Your task to perform on an android device: toggle sleep mode Image 0: 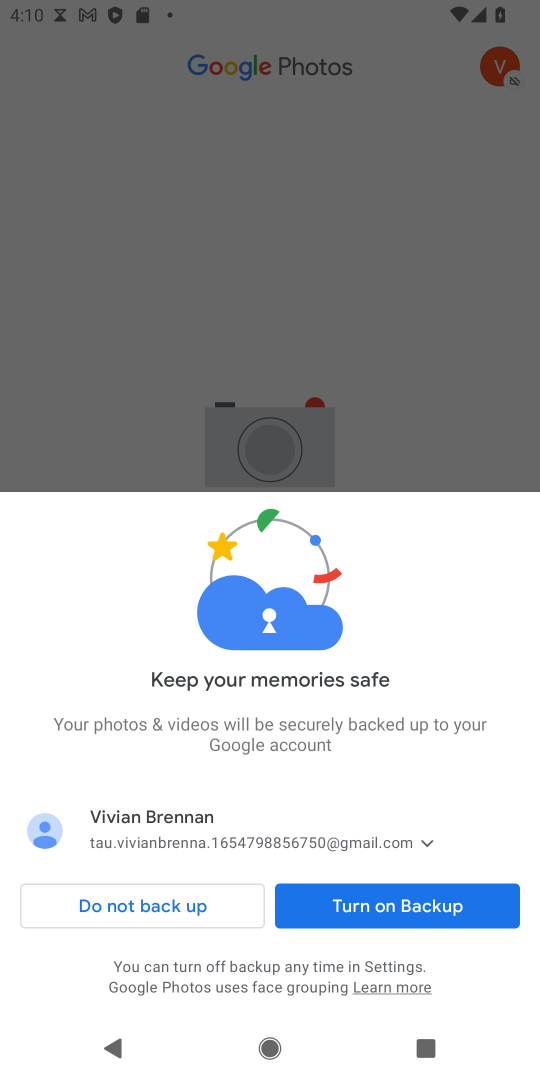
Step 0: press back button
Your task to perform on an android device: toggle sleep mode Image 1: 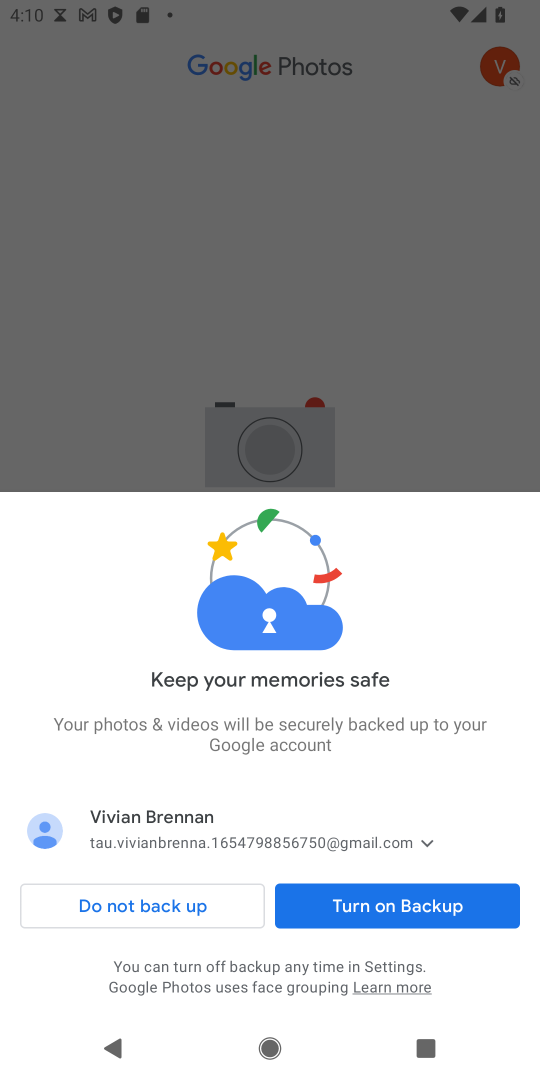
Step 1: press home button
Your task to perform on an android device: toggle sleep mode Image 2: 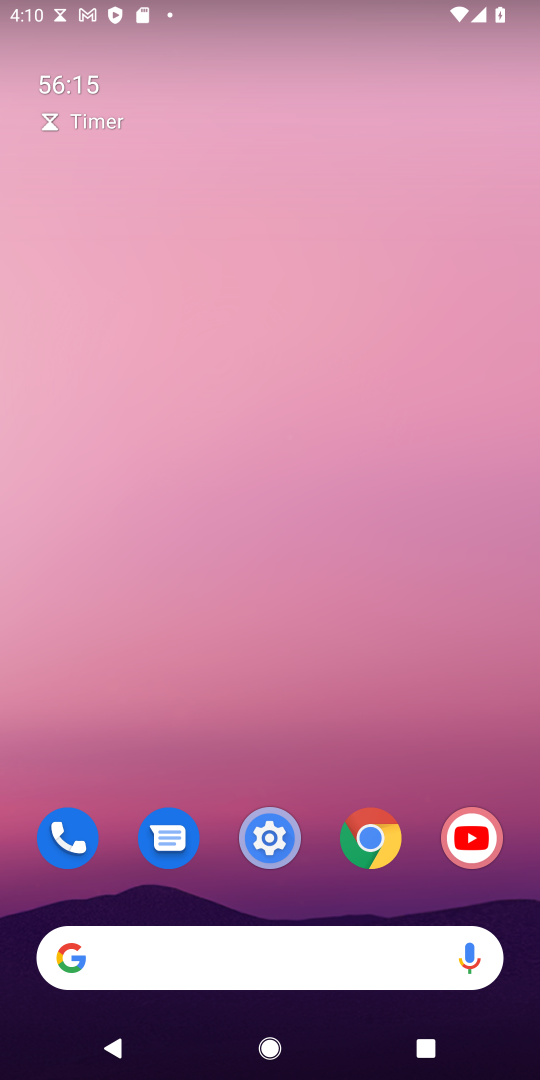
Step 2: click (263, 823)
Your task to perform on an android device: toggle sleep mode Image 3: 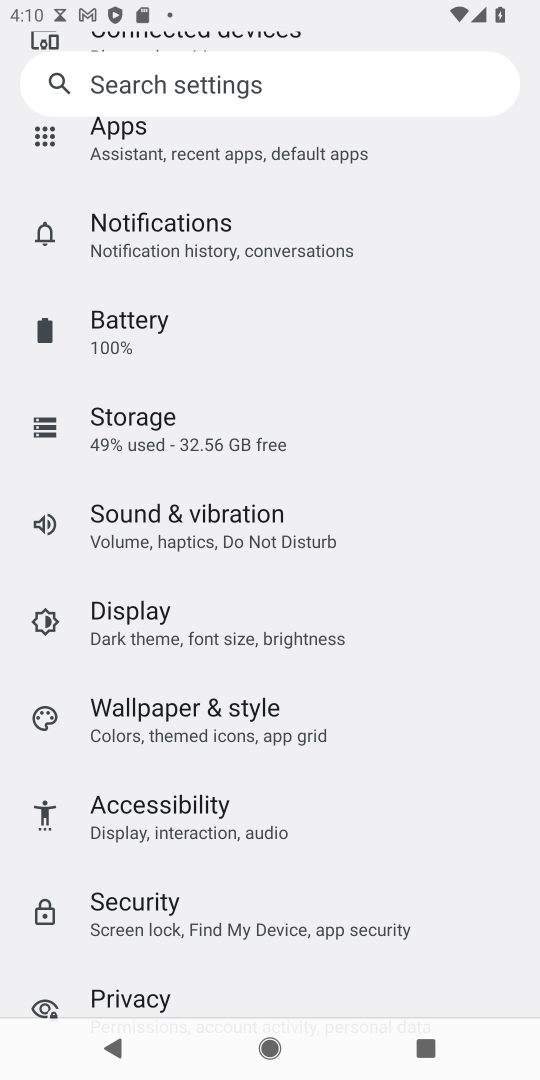
Step 3: click (215, 634)
Your task to perform on an android device: toggle sleep mode Image 4: 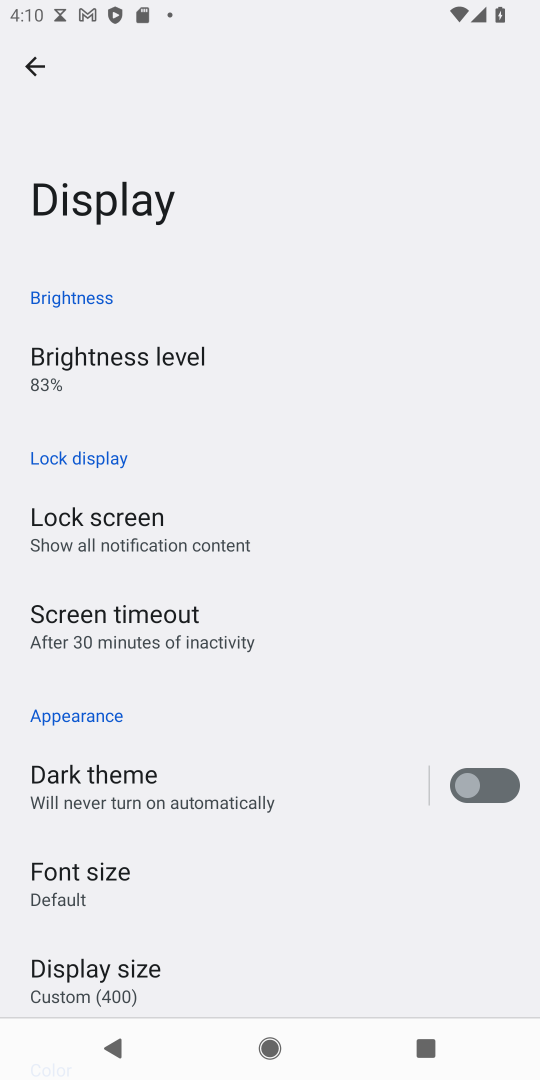
Step 4: click (313, 979)
Your task to perform on an android device: toggle sleep mode Image 5: 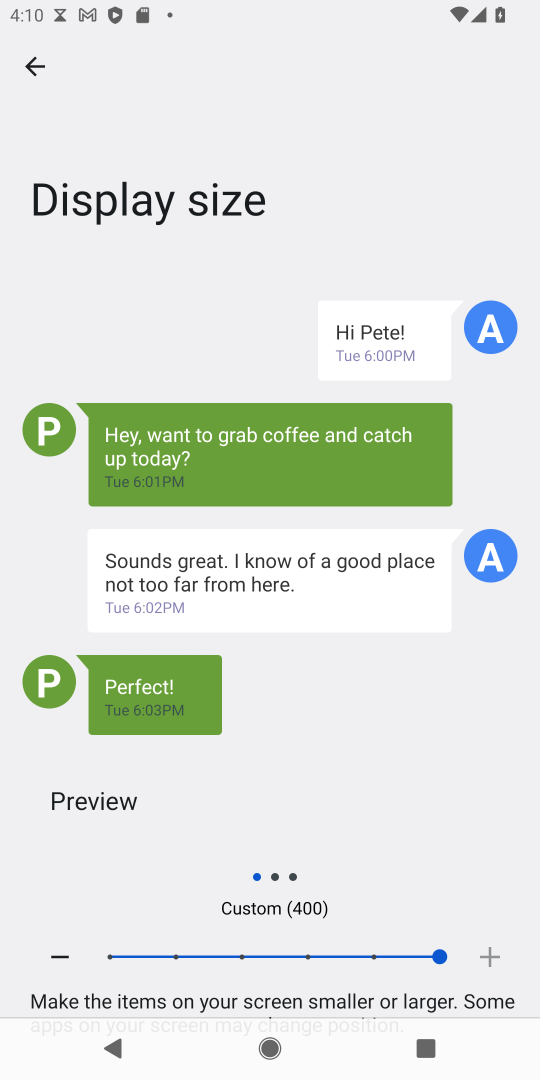
Step 5: click (37, 56)
Your task to perform on an android device: toggle sleep mode Image 6: 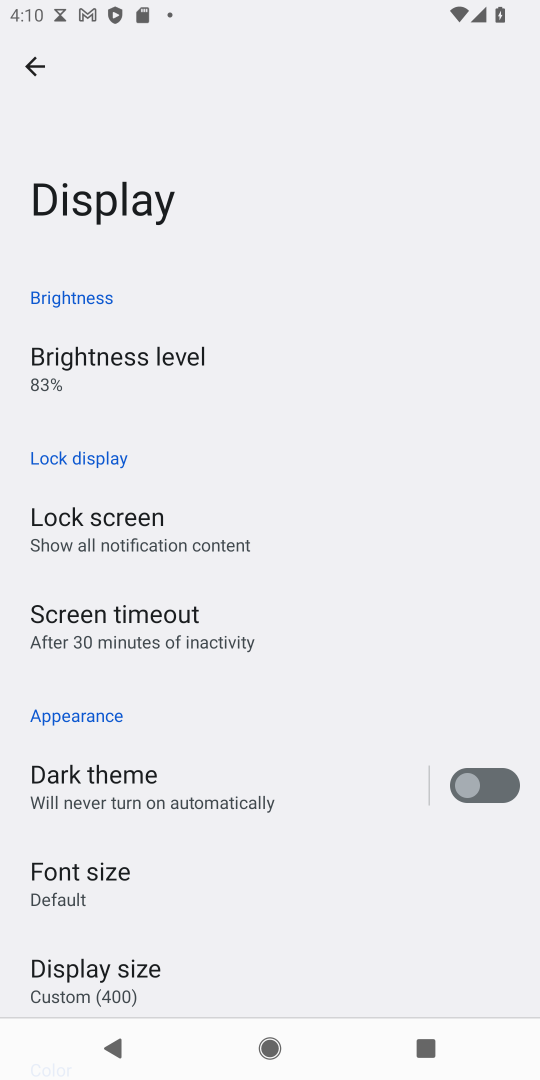
Step 6: task complete